Your task to perform on an android device: toggle pop-ups in chrome Image 0: 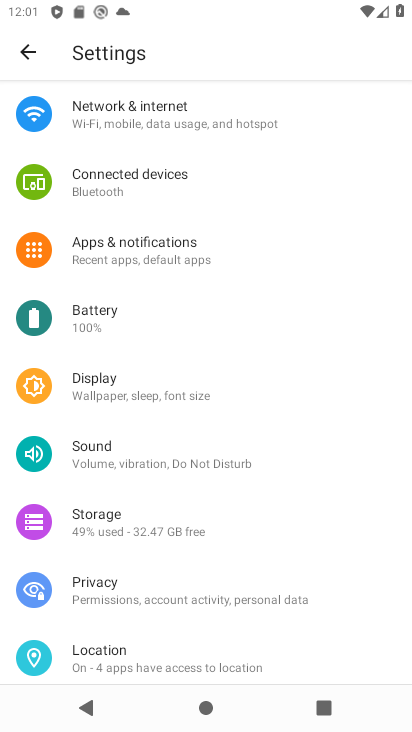
Step 0: press home button
Your task to perform on an android device: toggle pop-ups in chrome Image 1: 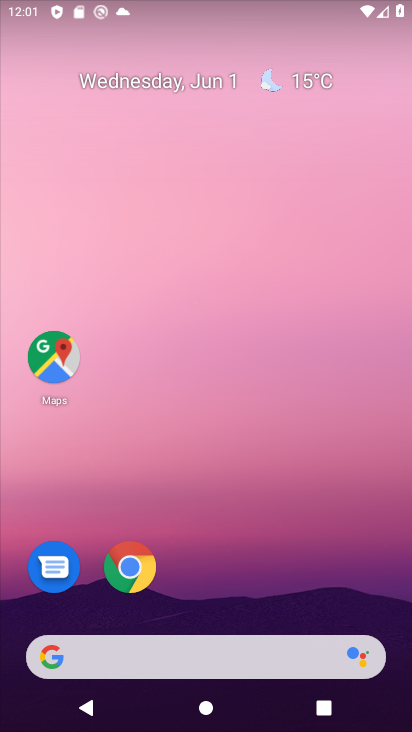
Step 1: click (159, 561)
Your task to perform on an android device: toggle pop-ups in chrome Image 2: 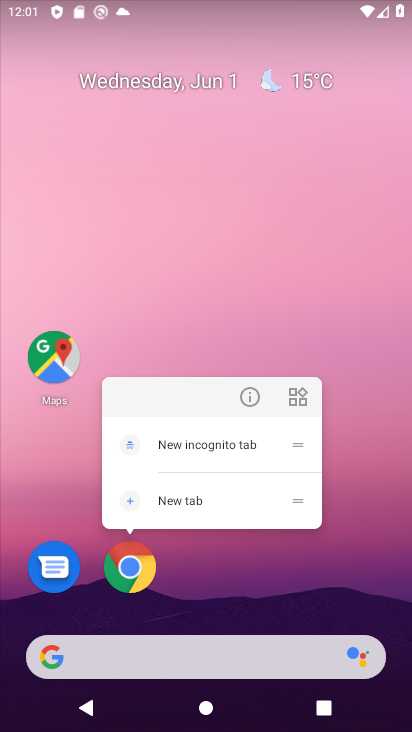
Step 2: click (116, 558)
Your task to perform on an android device: toggle pop-ups in chrome Image 3: 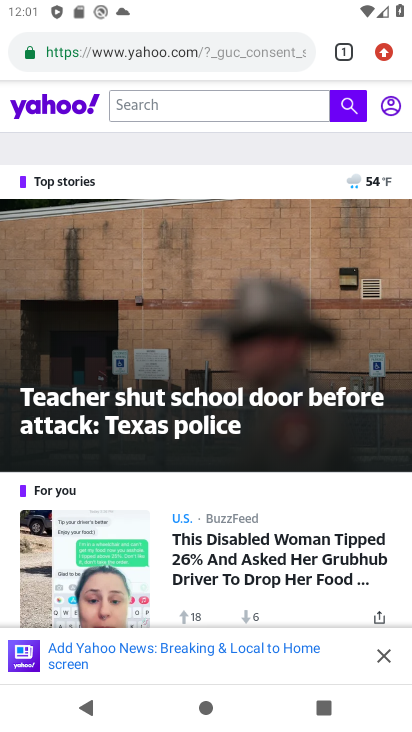
Step 3: drag from (380, 51) to (193, 601)
Your task to perform on an android device: toggle pop-ups in chrome Image 4: 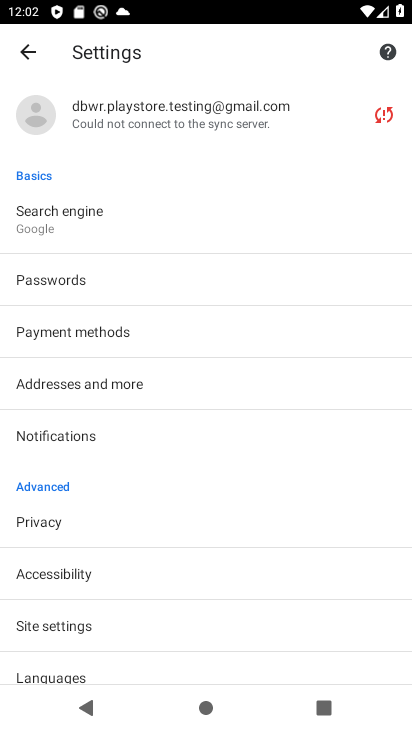
Step 4: click (89, 632)
Your task to perform on an android device: toggle pop-ups in chrome Image 5: 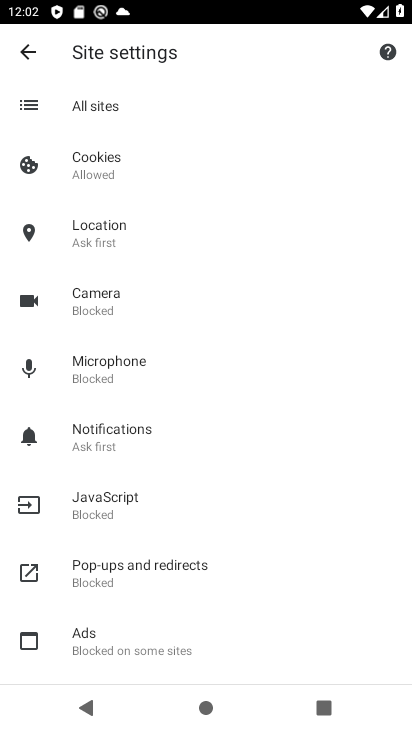
Step 5: click (129, 582)
Your task to perform on an android device: toggle pop-ups in chrome Image 6: 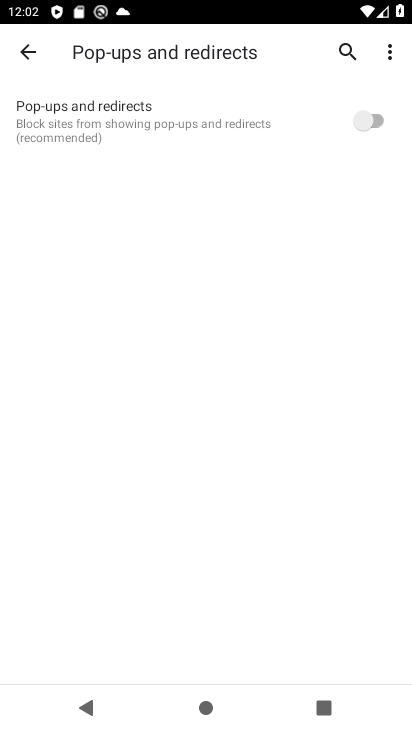
Step 6: click (365, 121)
Your task to perform on an android device: toggle pop-ups in chrome Image 7: 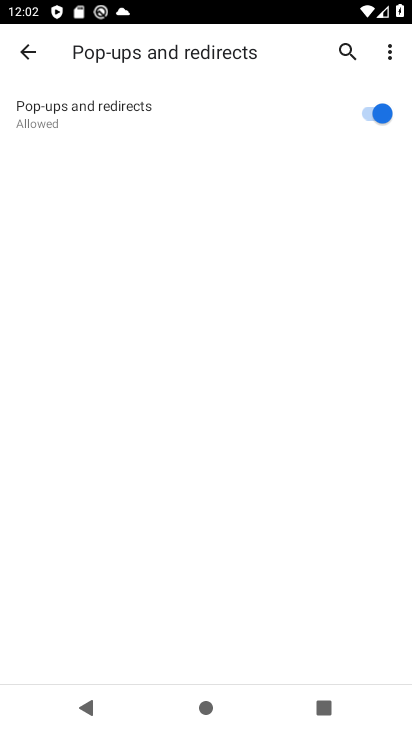
Step 7: task complete